Your task to perform on an android device: Open privacy settings Image 0: 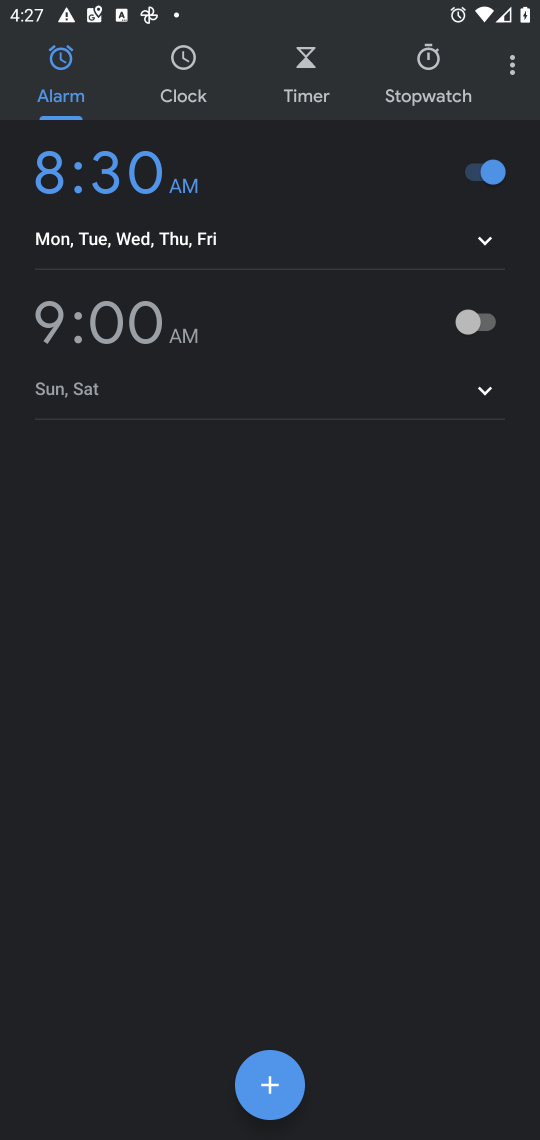
Step 0: press home button
Your task to perform on an android device: Open privacy settings Image 1: 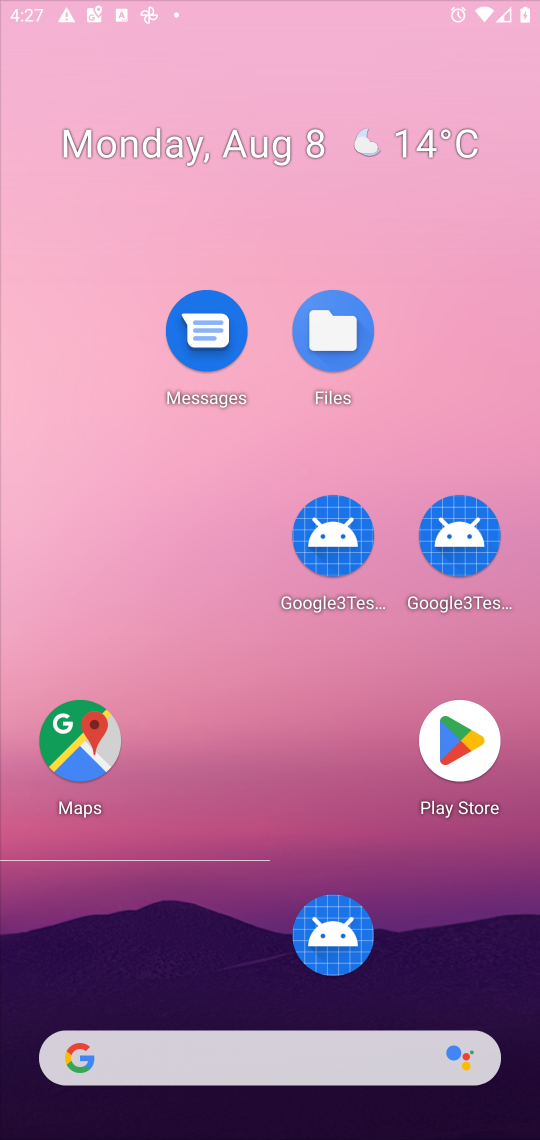
Step 1: drag from (295, 1079) to (356, 104)
Your task to perform on an android device: Open privacy settings Image 2: 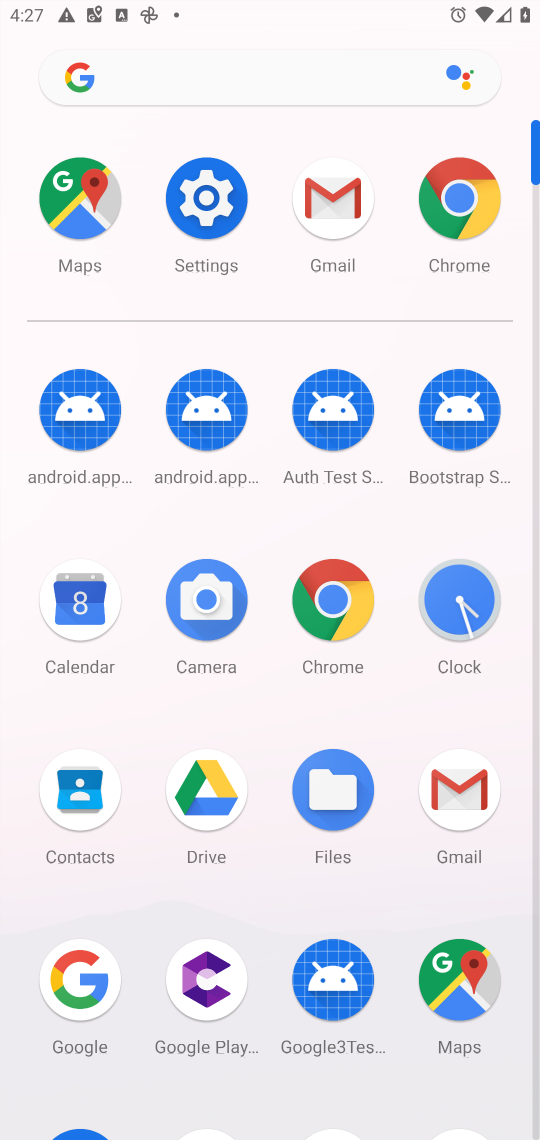
Step 2: click (180, 202)
Your task to perform on an android device: Open privacy settings Image 3: 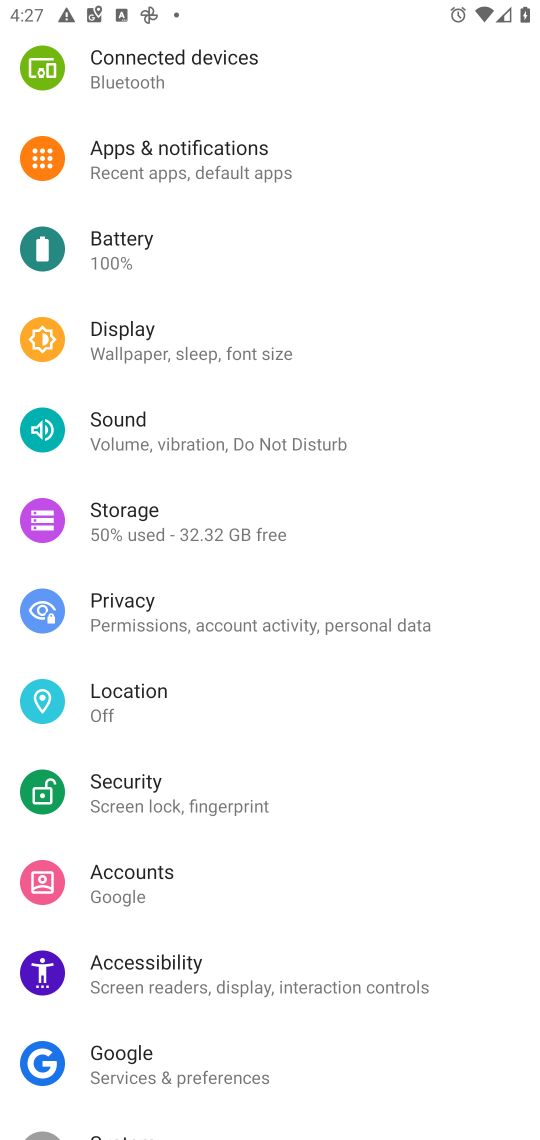
Step 3: click (191, 609)
Your task to perform on an android device: Open privacy settings Image 4: 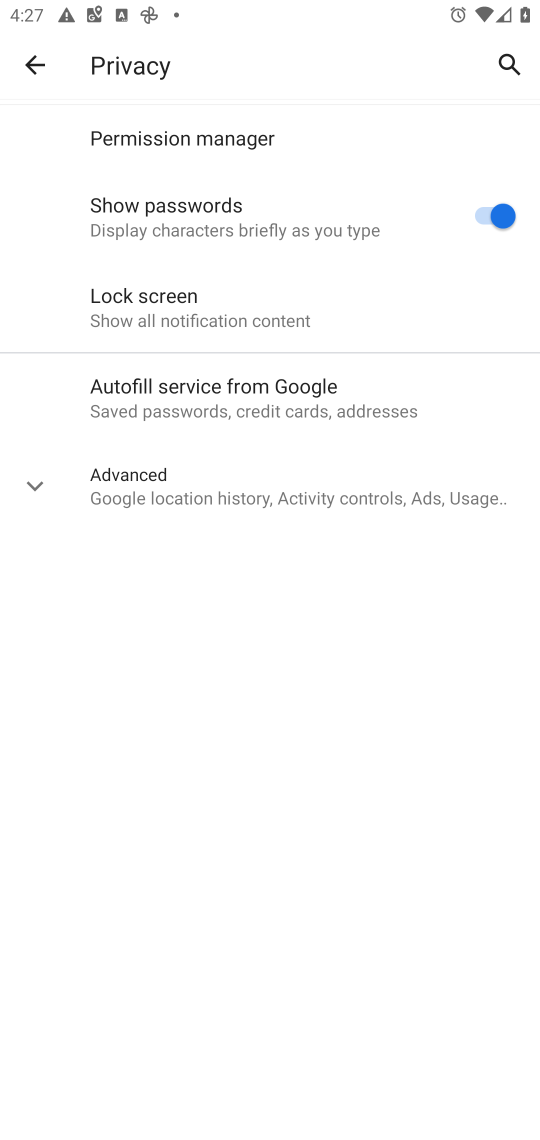
Step 4: task complete